Your task to perform on an android device: Open a new window in Chrome Image 0: 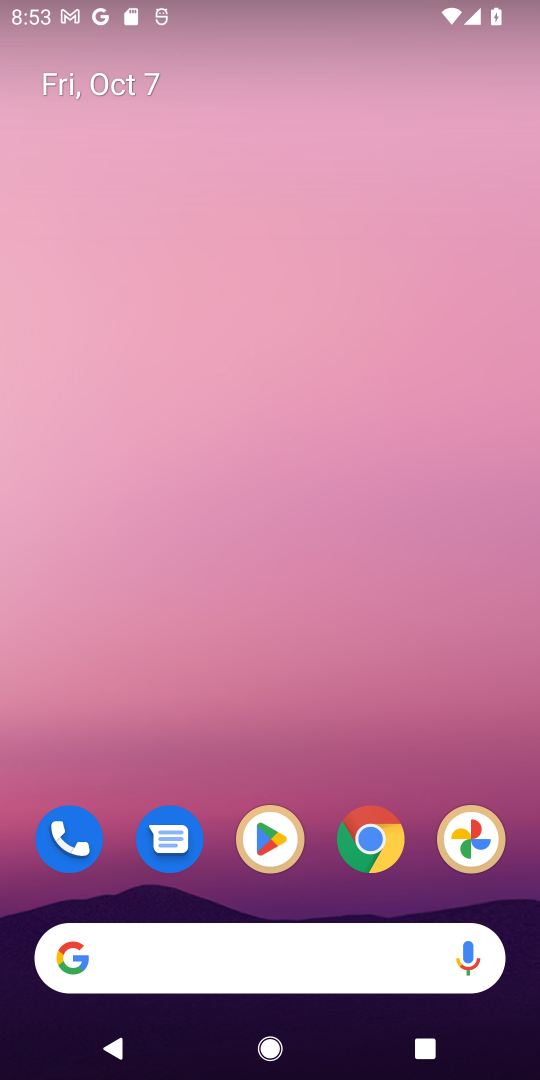
Step 0: click (382, 839)
Your task to perform on an android device: Open a new window in Chrome Image 1: 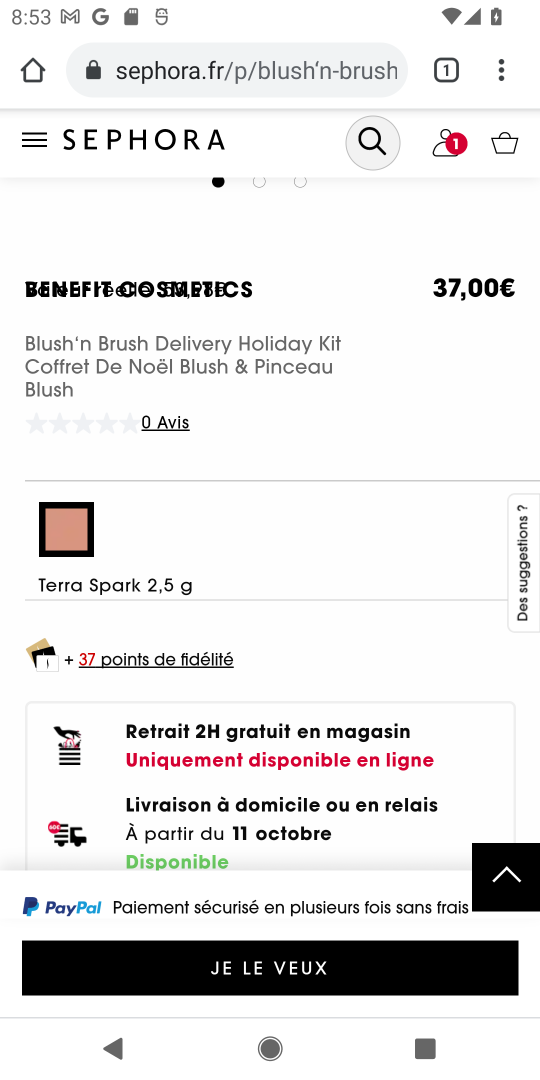
Step 1: click (214, 71)
Your task to perform on an android device: Open a new window in Chrome Image 2: 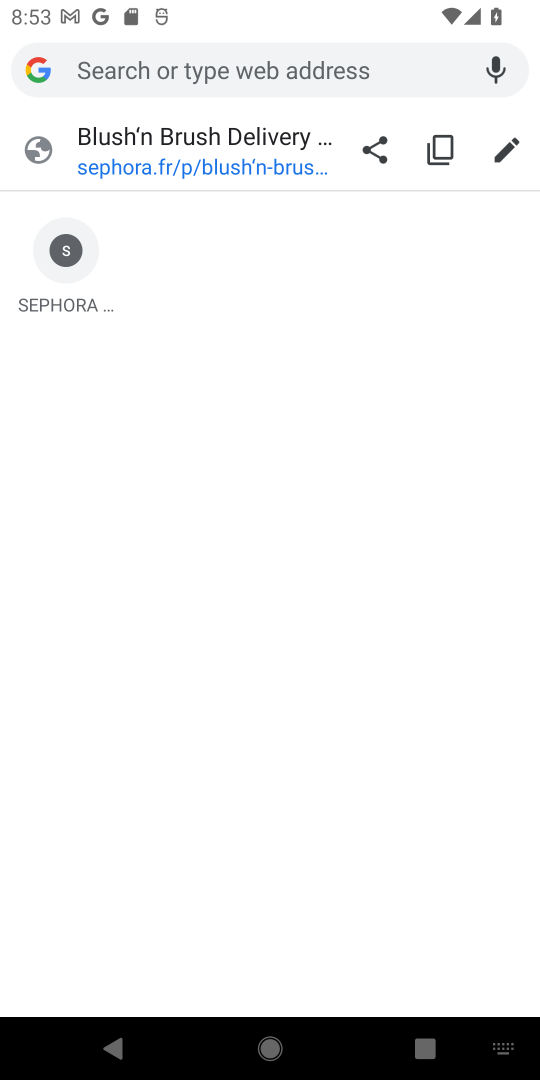
Step 2: press home button
Your task to perform on an android device: Open a new window in Chrome Image 3: 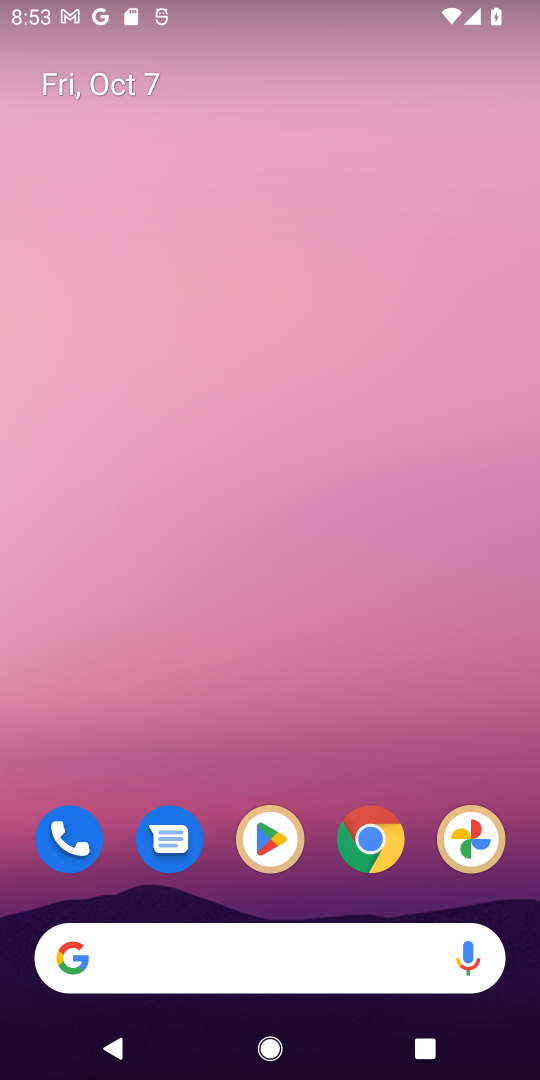
Step 3: click (385, 850)
Your task to perform on an android device: Open a new window in Chrome Image 4: 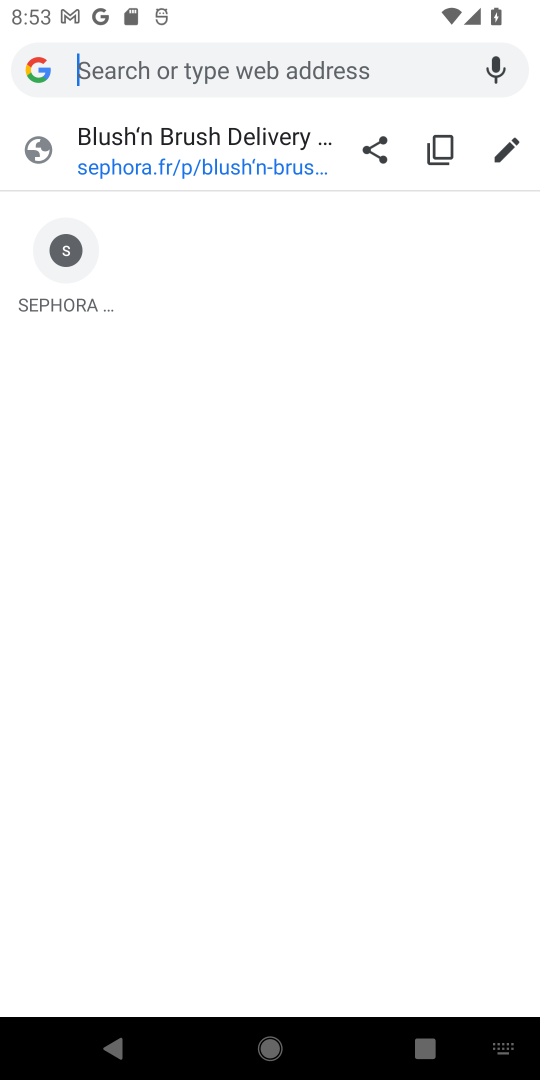
Step 4: type "new chrome"
Your task to perform on an android device: Open a new window in Chrome Image 5: 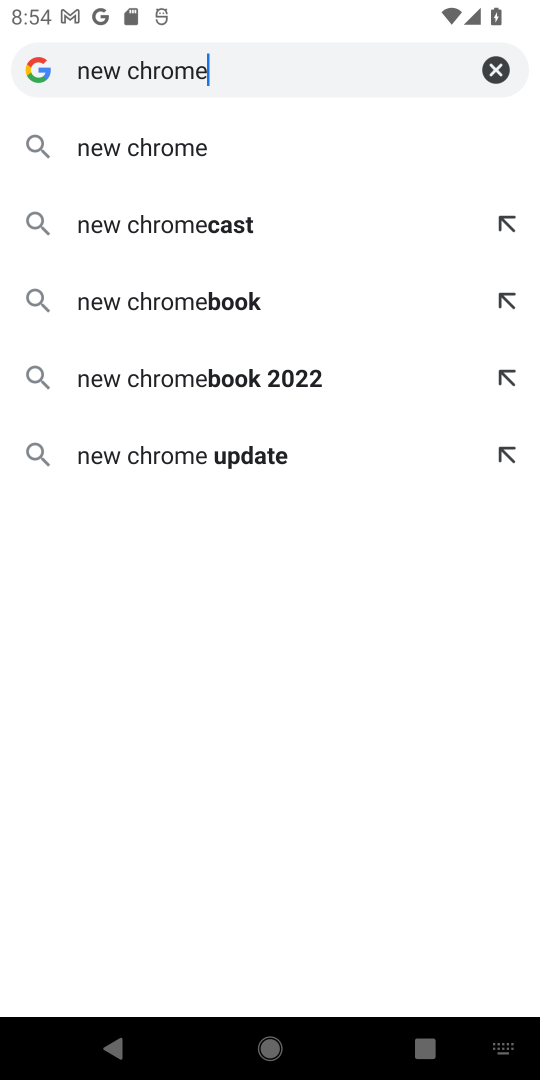
Step 5: click (191, 149)
Your task to perform on an android device: Open a new window in Chrome Image 6: 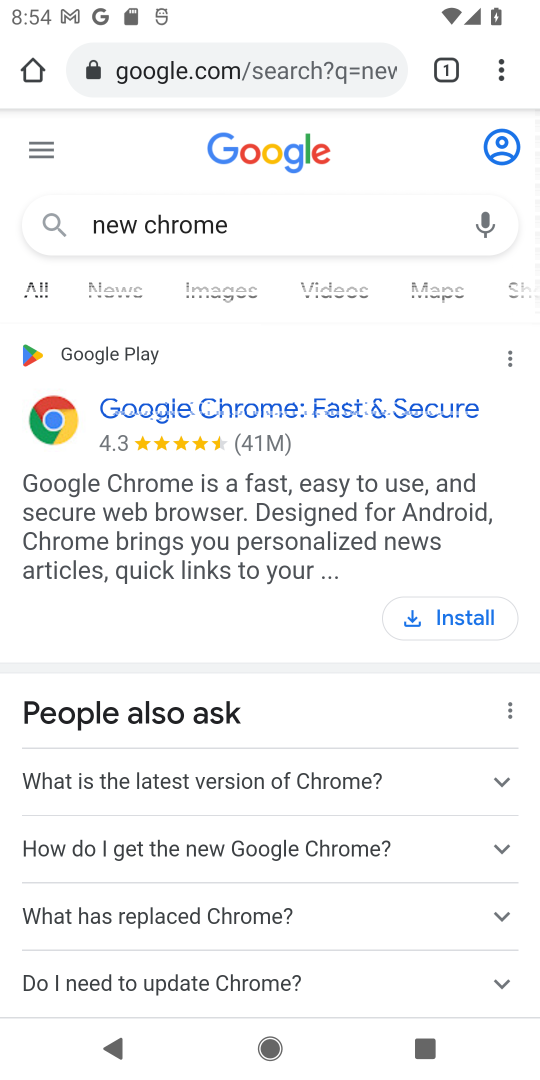
Step 6: click (153, 410)
Your task to perform on an android device: Open a new window in Chrome Image 7: 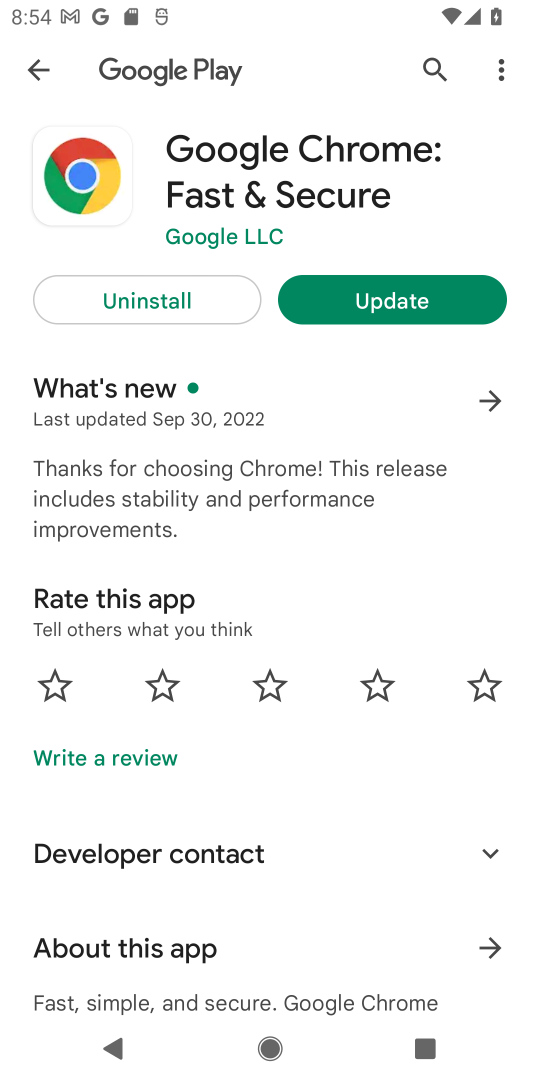
Step 7: click (40, 72)
Your task to perform on an android device: Open a new window in Chrome Image 8: 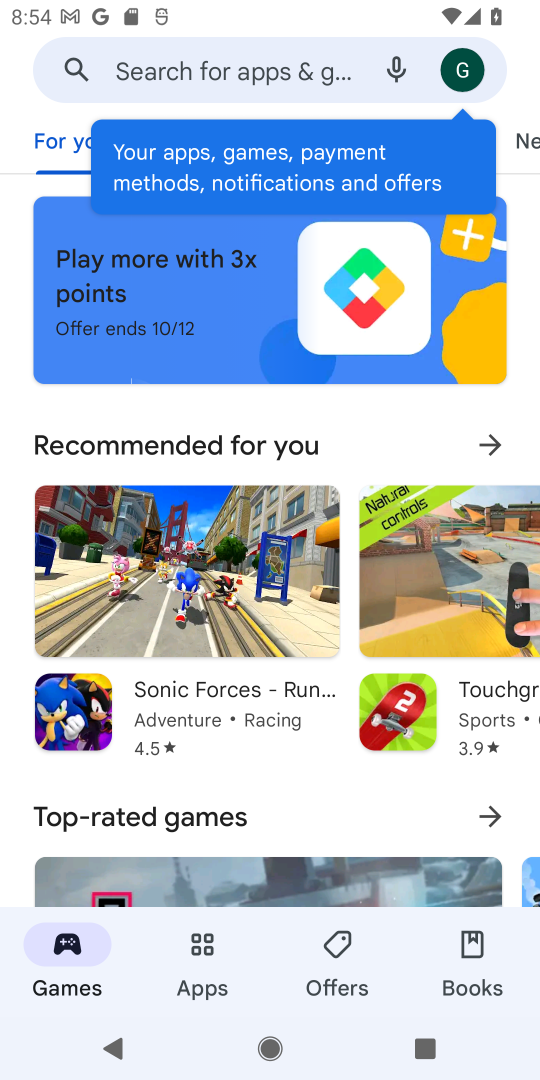
Step 8: task complete